Your task to perform on an android device: toggle priority inbox in the gmail app Image 0: 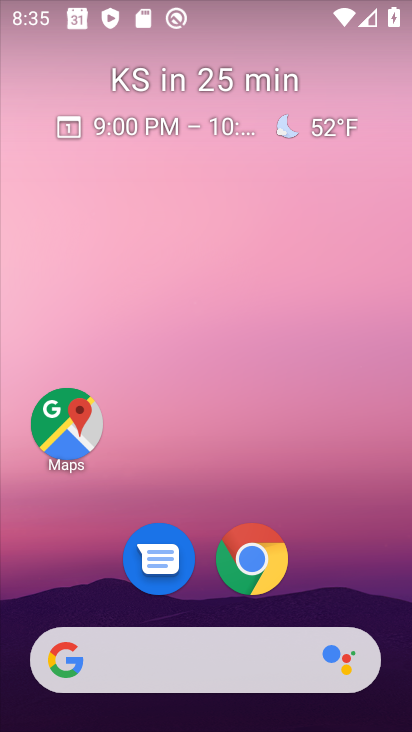
Step 0: drag from (326, 544) to (277, 23)
Your task to perform on an android device: toggle priority inbox in the gmail app Image 1: 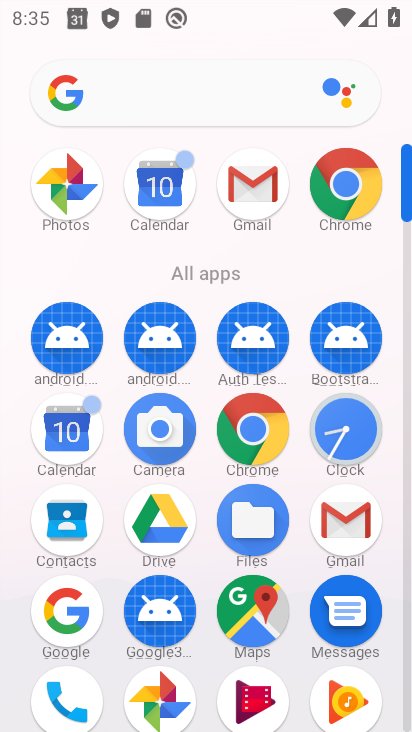
Step 1: click (344, 517)
Your task to perform on an android device: toggle priority inbox in the gmail app Image 2: 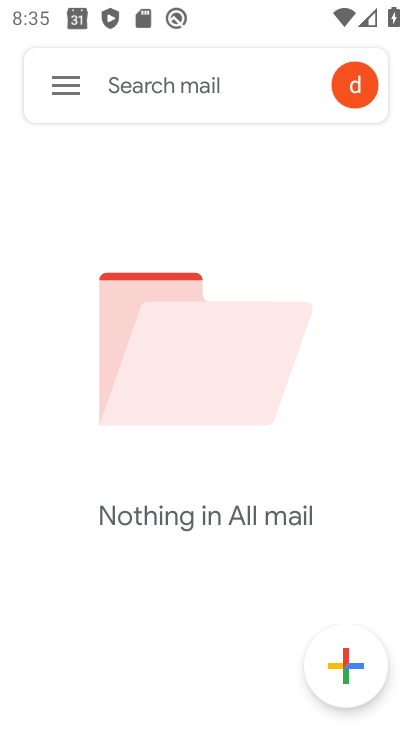
Step 2: click (63, 81)
Your task to perform on an android device: toggle priority inbox in the gmail app Image 3: 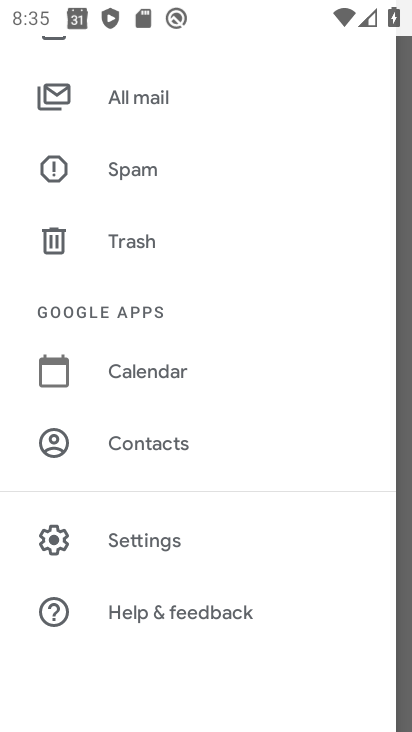
Step 3: click (111, 537)
Your task to perform on an android device: toggle priority inbox in the gmail app Image 4: 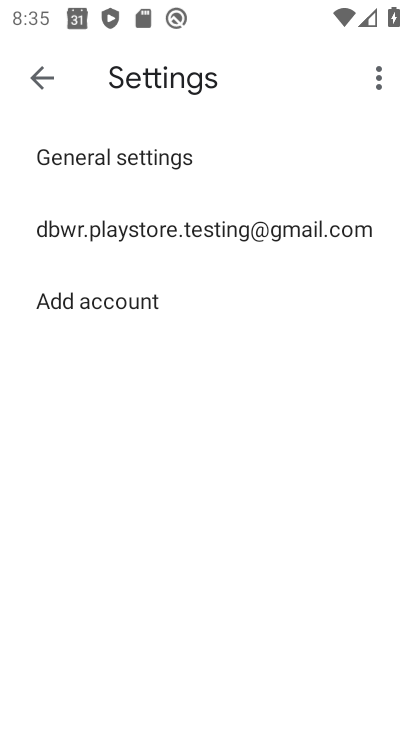
Step 4: click (128, 229)
Your task to perform on an android device: toggle priority inbox in the gmail app Image 5: 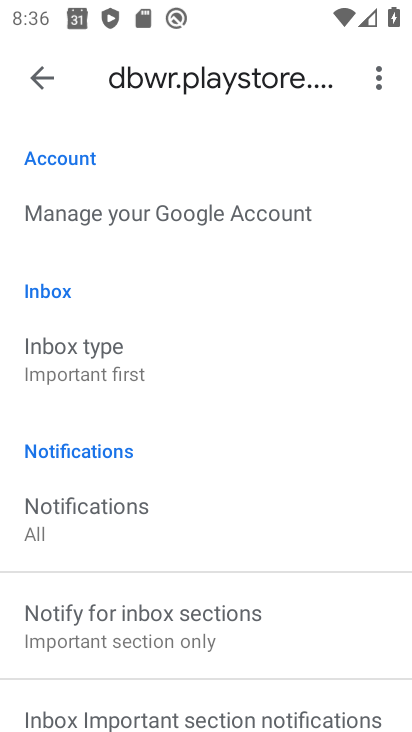
Step 5: click (99, 362)
Your task to perform on an android device: toggle priority inbox in the gmail app Image 6: 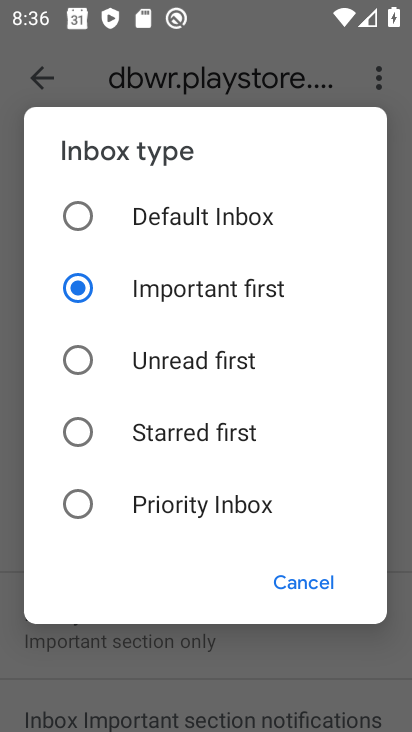
Step 6: click (188, 497)
Your task to perform on an android device: toggle priority inbox in the gmail app Image 7: 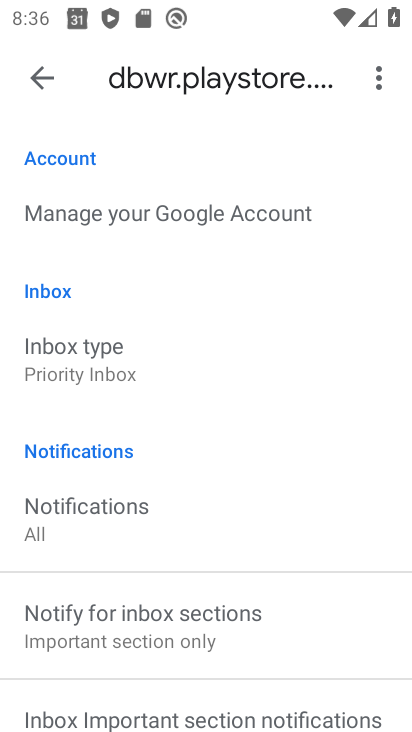
Step 7: task complete